Your task to perform on an android device: Go to Google maps Image 0: 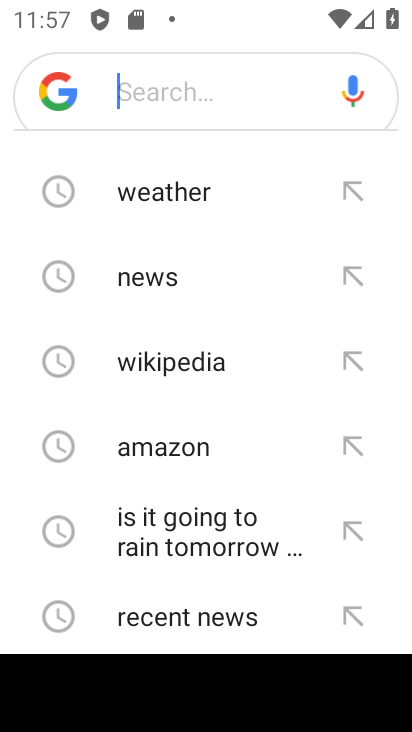
Step 0: press back button
Your task to perform on an android device: Go to Google maps Image 1: 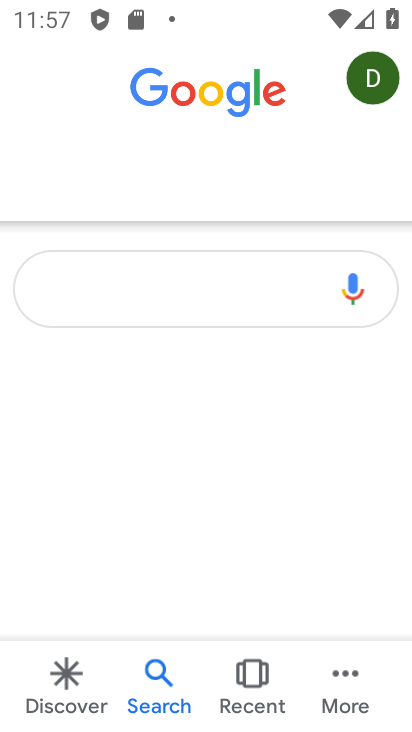
Step 1: press back button
Your task to perform on an android device: Go to Google maps Image 2: 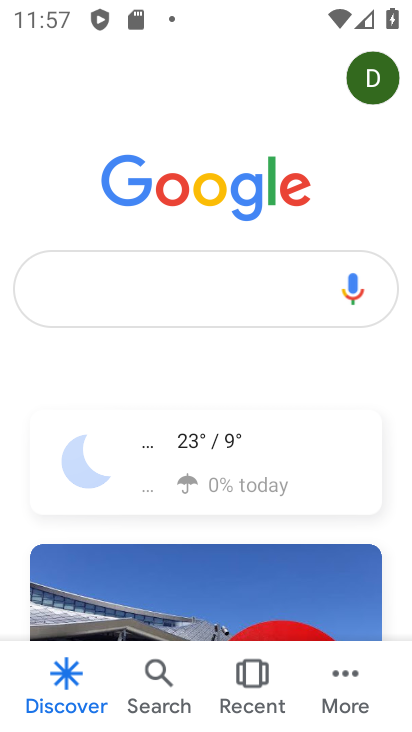
Step 2: press back button
Your task to perform on an android device: Go to Google maps Image 3: 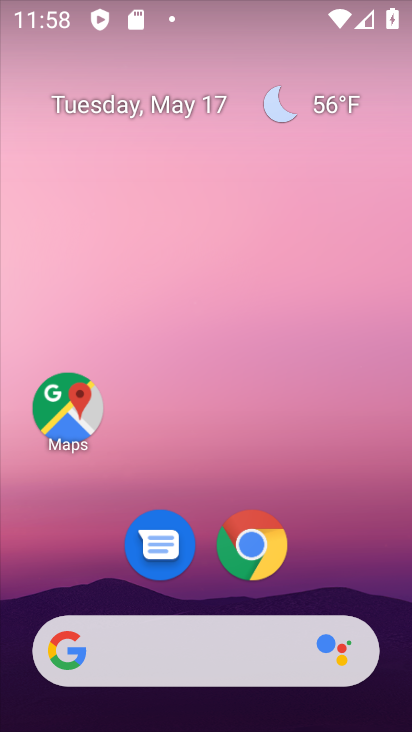
Step 3: click (67, 409)
Your task to perform on an android device: Go to Google maps Image 4: 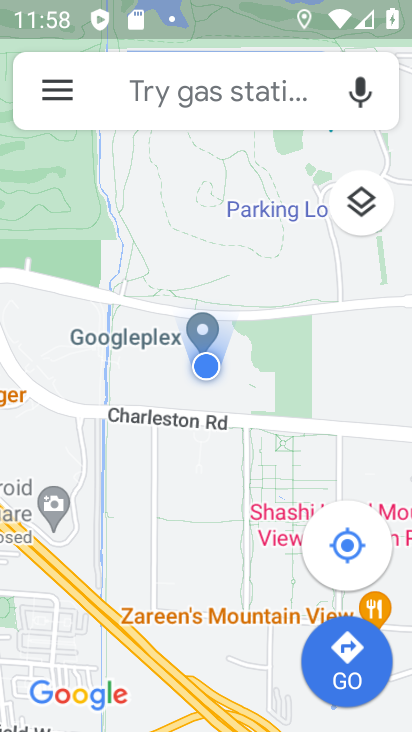
Step 4: task complete